Your task to perform on an android device: turn on data saver in the chrome app Image 0: 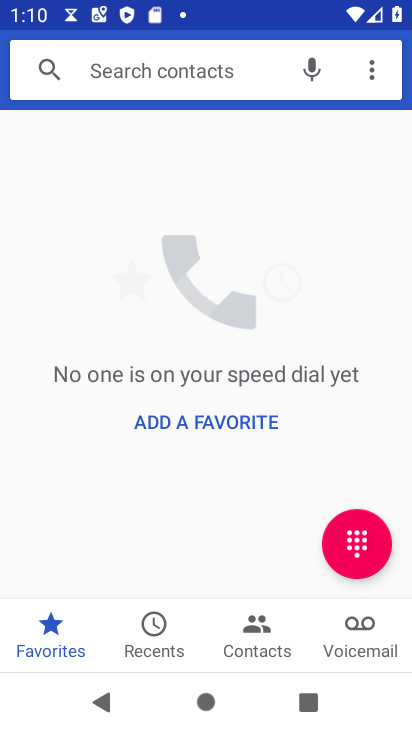
Step 0: press home button
Your task to perform on an android device: turn on data saver in the chrome app Image 1: 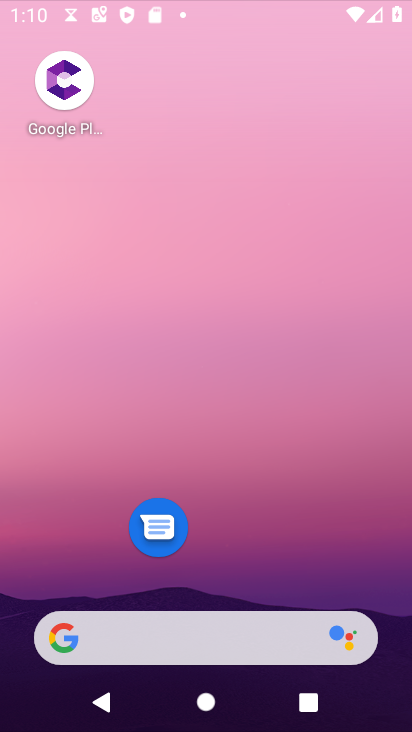
Step 1: drag from (209, 555) to (291, 106)
Your task to perform on an android device: turn on data saver in the chrome app Image 2: 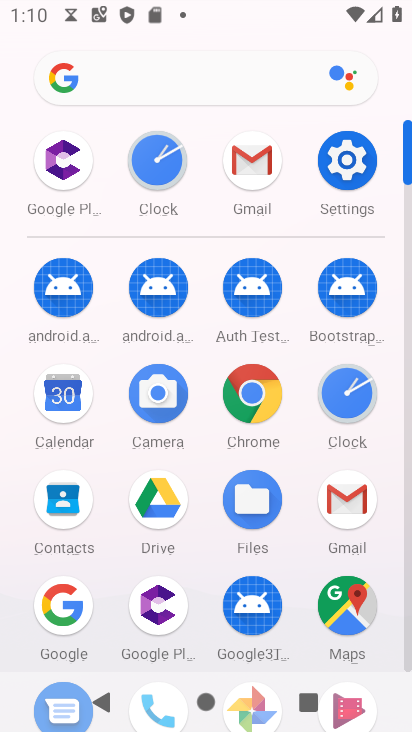
Step 2: click (261, 389)
Your task to perform on an android device: turn on data saver in the chrome app Image 3: 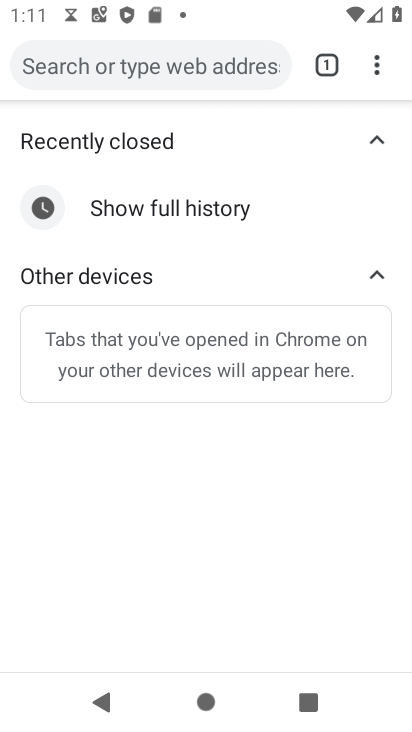
Step 3: click (373, 61)
Your task to perform on an android device: turn on data saver in the chrome app Image 4: 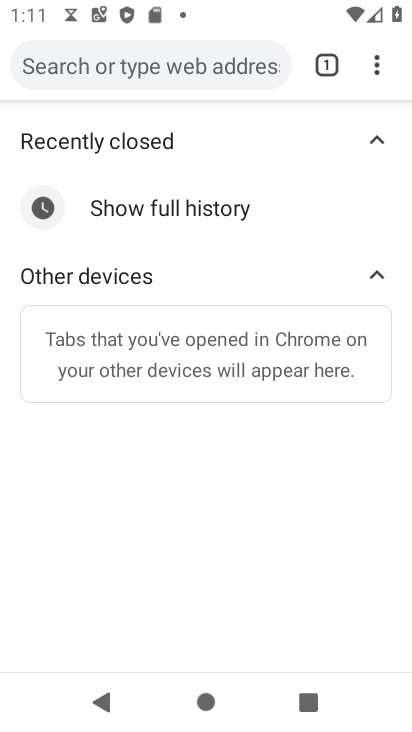
Step 4: click (373, 64)
Your task to perform on an android device: turn on data saver in the chrome app Image 5: 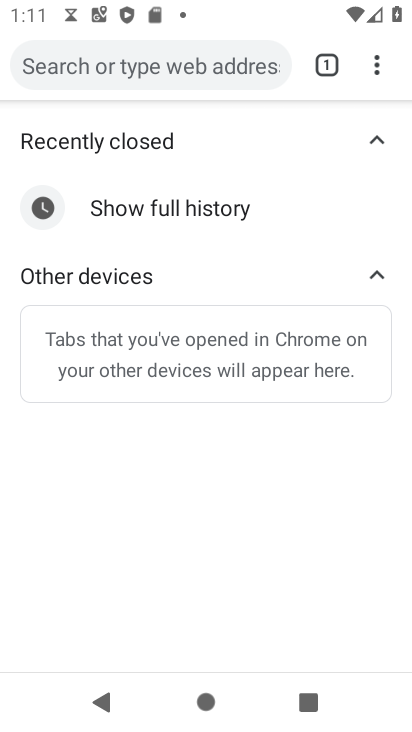
Step 5: drag from (373, 52) to (189, 529)
Your task to perform on an android device: turn on data saver in the chrome app Image 6: 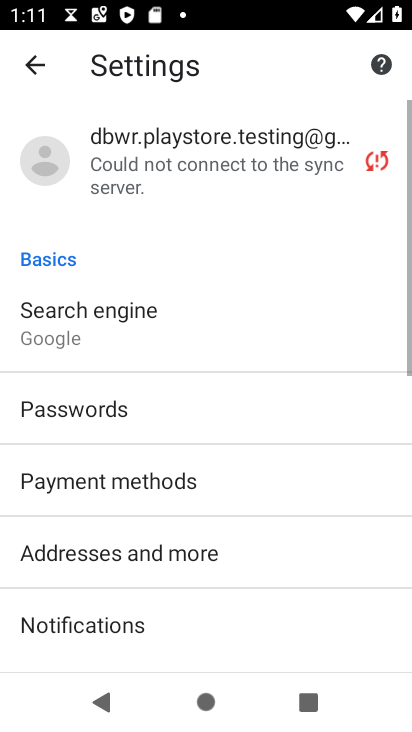
Step 6: drag from (214, 495) to (242, 49)
Your task to perform on an android device: turn on data saver in the chrome app Image 7: 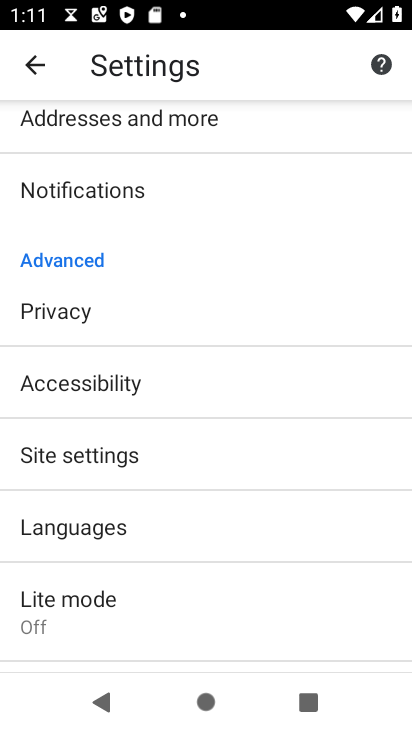
Step 7: click (105, 600)
Your task to perform on an android device: turn on data saver in the chrome app Image 8: 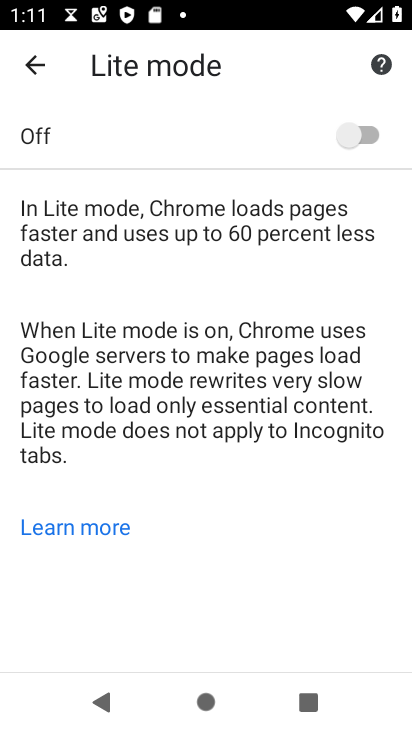
Step 8: click (352, 131)
Your task to perform on an android device: turn on data saver in the chrome app Image 9: 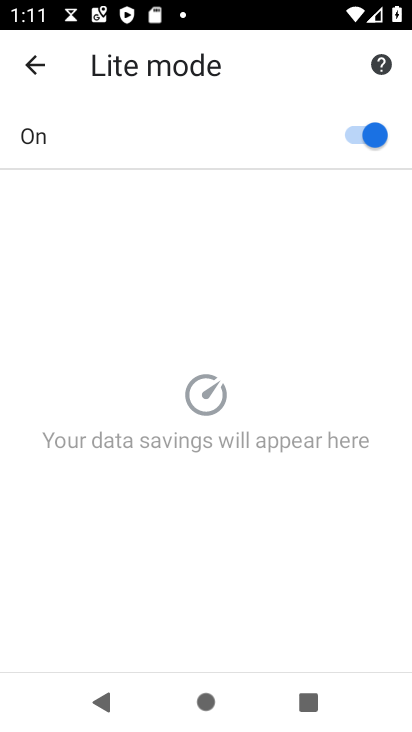
Step 9: task complete